Your task to perform on an android device: Open battery settings Image 0: 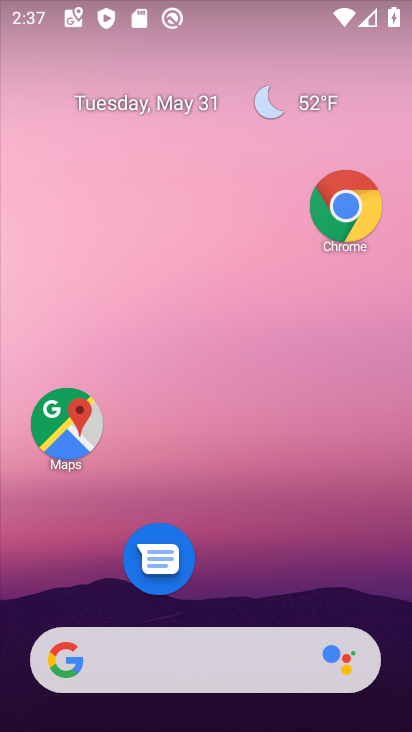
Step 0: drag from (326, 576) to (245, 178)
Your task to perform on an android device: Open battery settings Image 1: 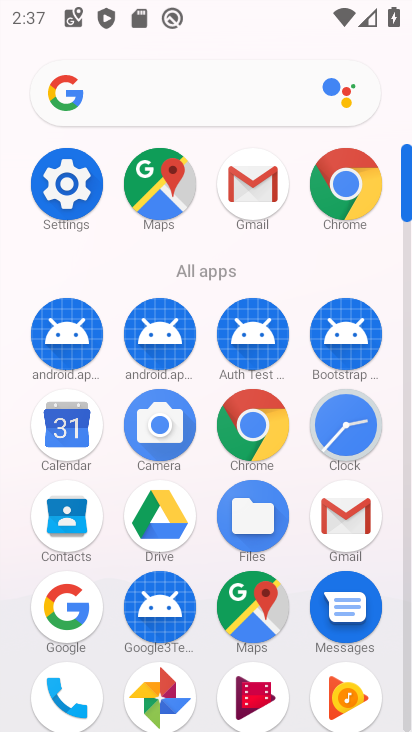
Step 1: click (71, 206)
Your task to perform on an android device: Open battery settings Image 2: 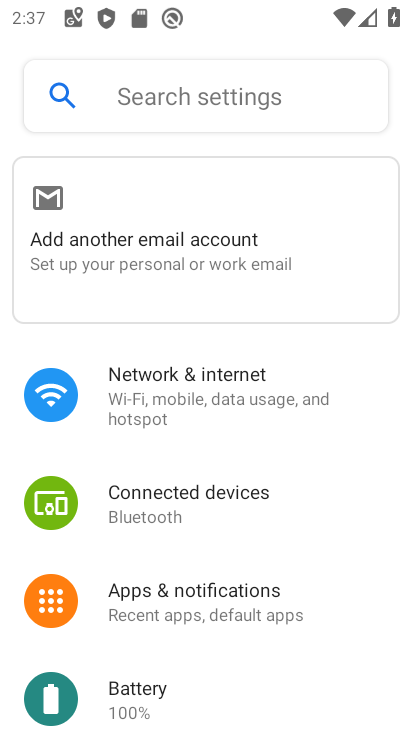
Step 2: click (166, 694)
Your task to perform on an android device: Open battery settings Image 3: 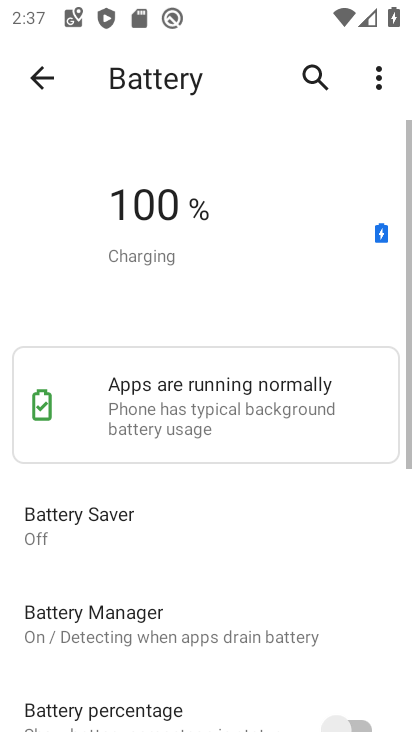
Step 3: task complete